Your task to perform on an android device: move an email to a new category in the gmail app Image 0: 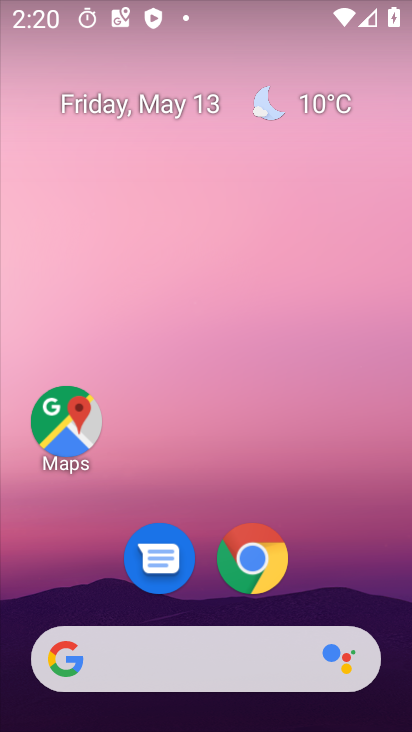
Step 0: click (72, 409)
Your task to perform on an android device: move an email to a new category in the gmail app Image 1: 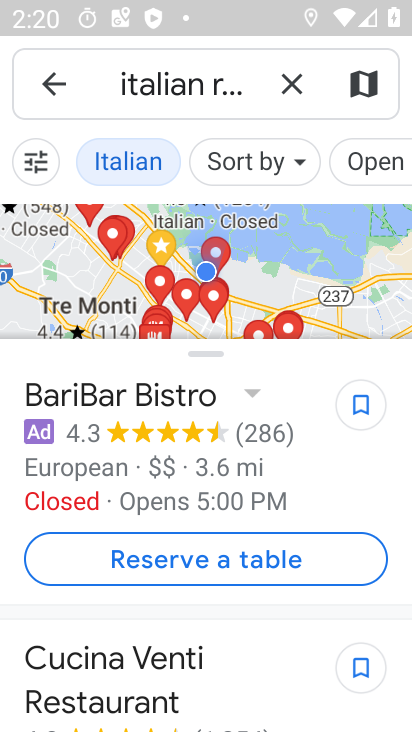
Step 1: press home button
Your task to perform on an android device: move an email to a new category in the gmail app Image 2: 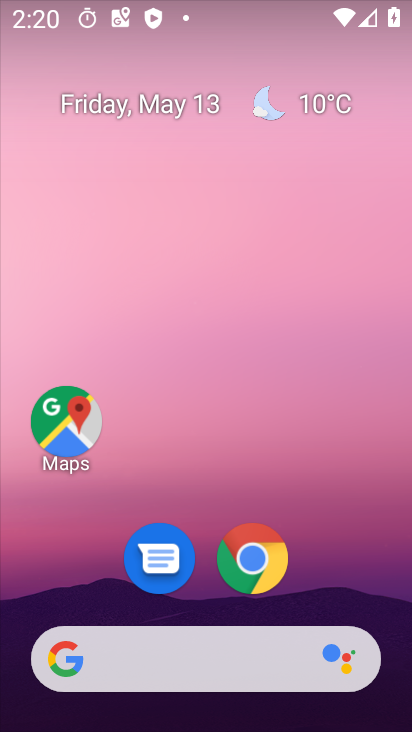
Step 2: drag from (222, 623) to (244, 228)
Your task to perform on an android device: move an email to a new category in the gmail app Image 3: 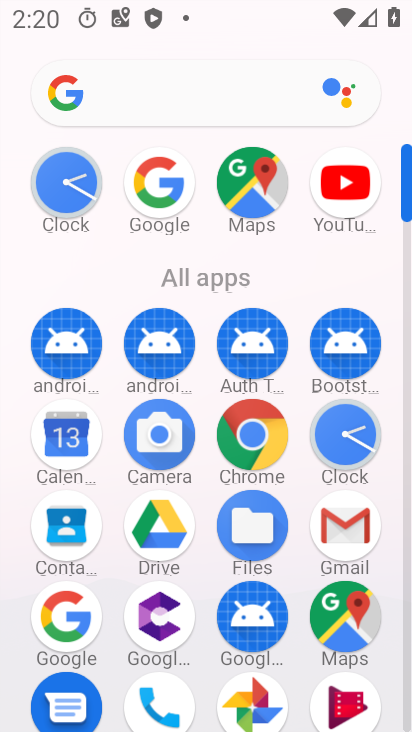
Step 3: click (338, 529)
Your task to perform on an android device: move an email to a new category in the gmail app Image 4: 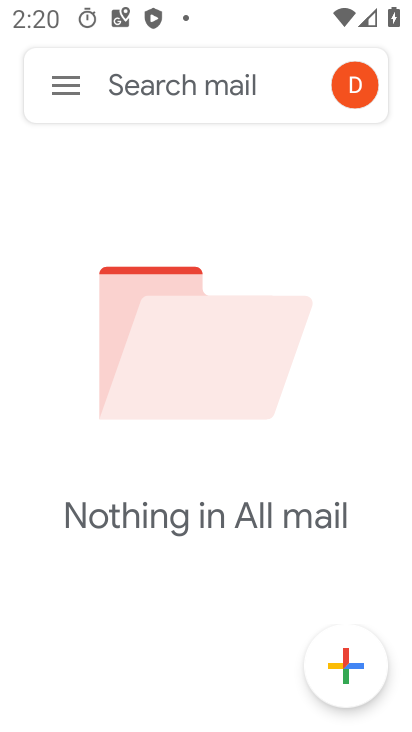
Step 4: click (78, 79)
Your task to perform on an android device: move an email to a new category in the gmail app Image 5: 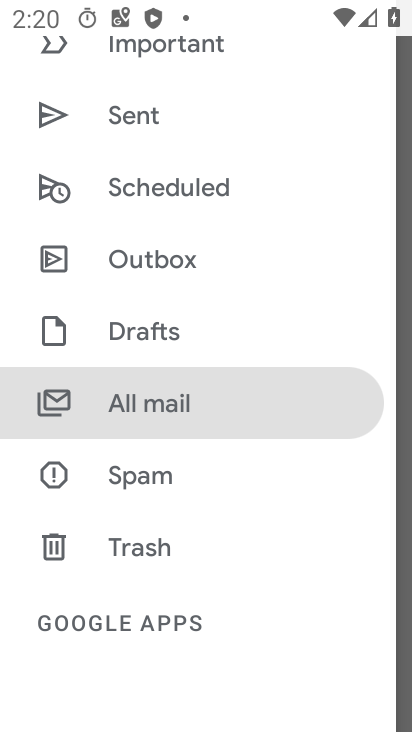
Step 5: drag from (168, 187) to (208, 528)
Your task to perform on an android device: move an email to a new category in the gmail app Image 6: 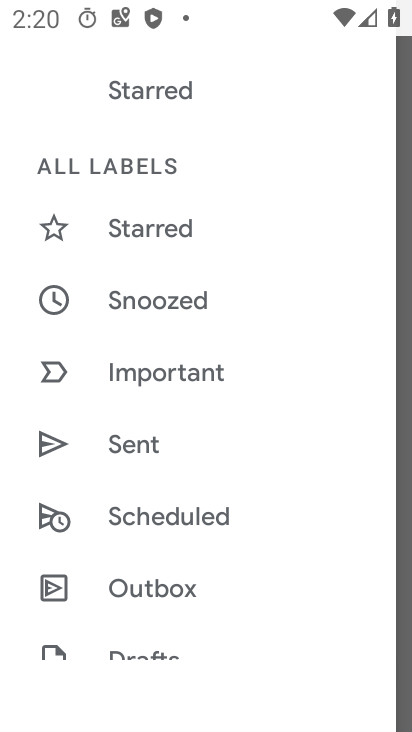
Step 6: drag from (187, 248) to (192, 577)
Your task to perform on an android device: move an email to a new category in the gmail app Image 7: 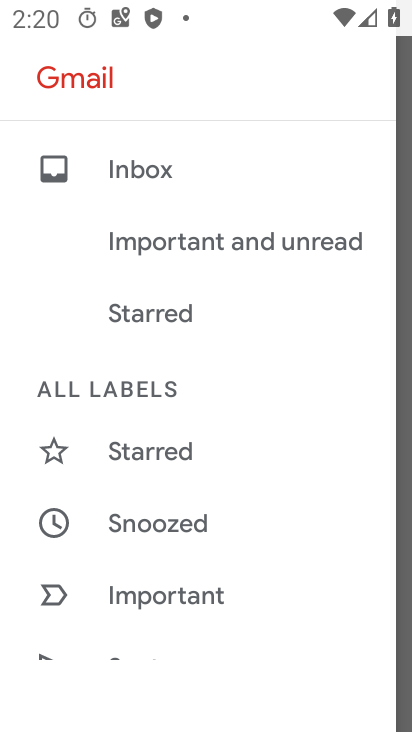
Step 7: click (129, 161)
Your task to perform on an android device: move an email to a new category in the gmail app Image 8: 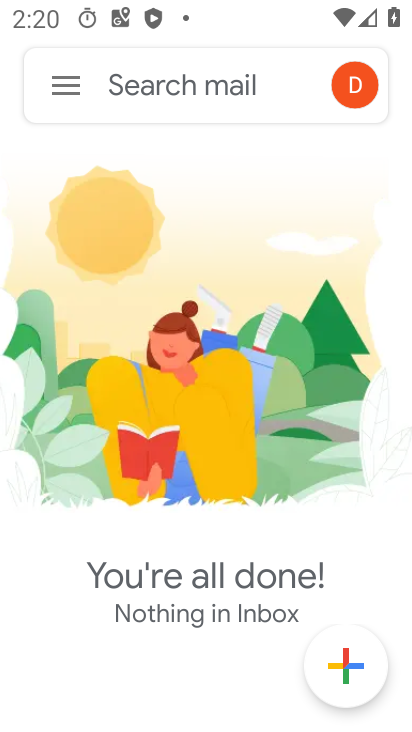
Step 8: task complete